Your task to perform on an android device: See recent photos Image 0: 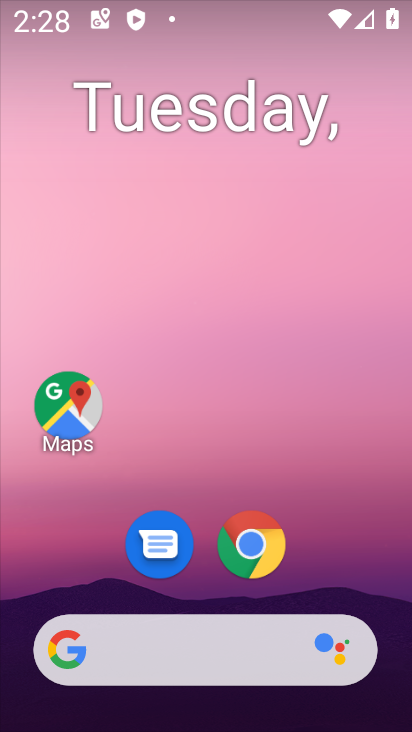
Step 0: drag from (311, 559) to (256, 53)
Your task to perform on an android device: See recent photos Image 1: 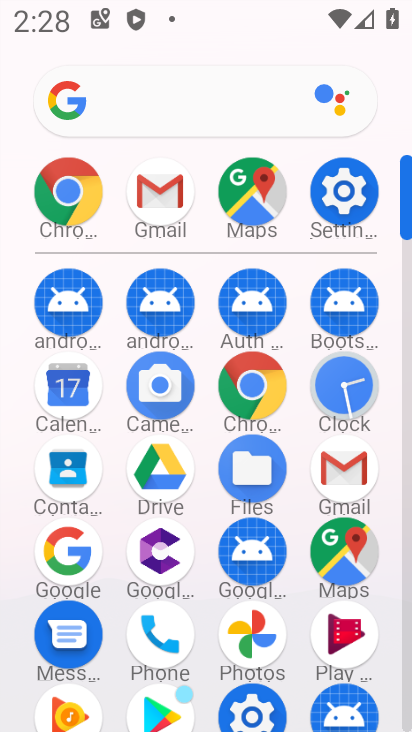
Step 1: click (254, 635)
Your task to perform on an android device: See recent photos Image 2: 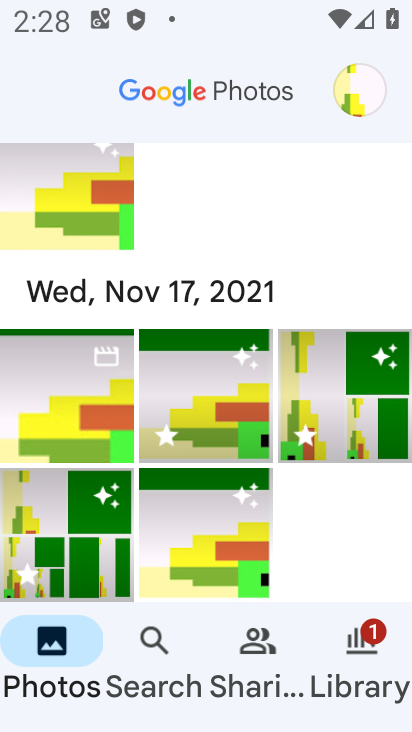
Step 2: task complete